Your task to perform on an android device: set the stopwatch Image 0: 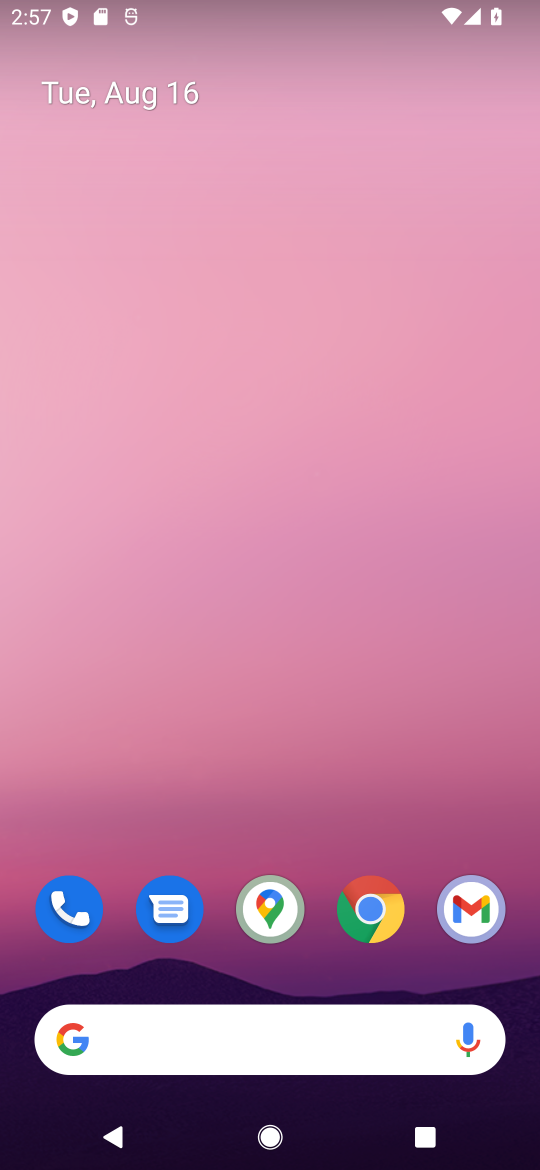
Step 0: click (370, 25)
Your task to perform on an android device: set the stopwatch Image 1: 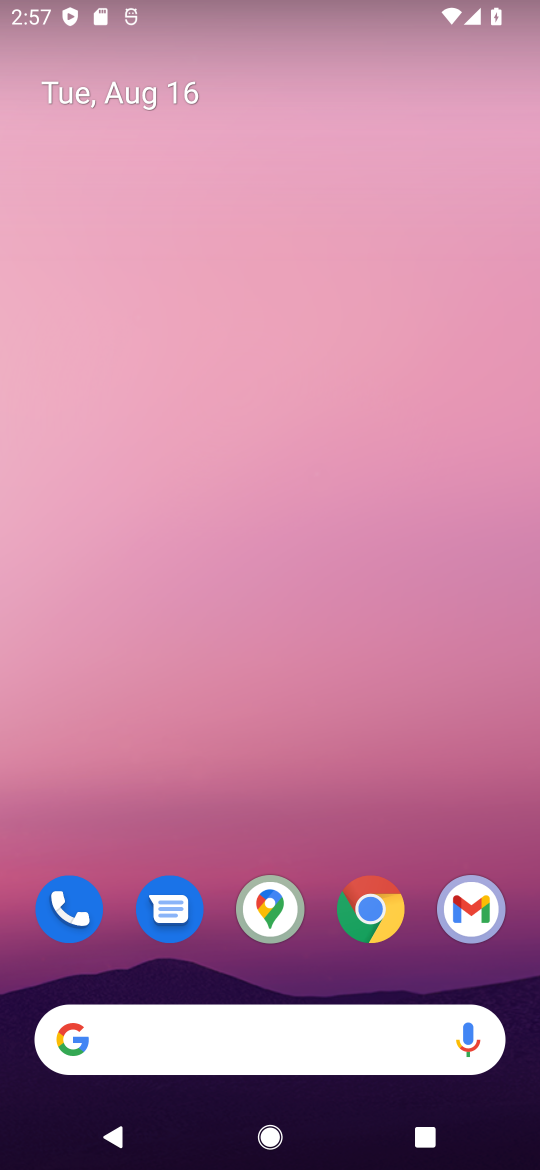
Step 1: drag from (297, 23) to (278, 94)
Your task to perform on an android device: set the stopwatch Image 2: 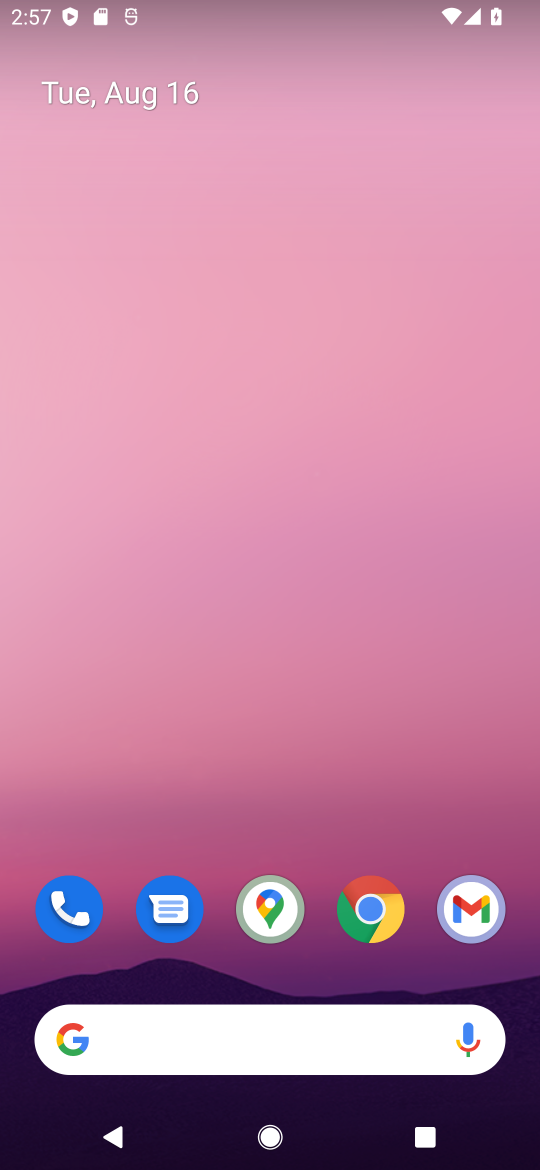
Step 2: drag from (240, 865) to (244, 235)
Your task to perform on an android device: set the stopwatch Image 3: 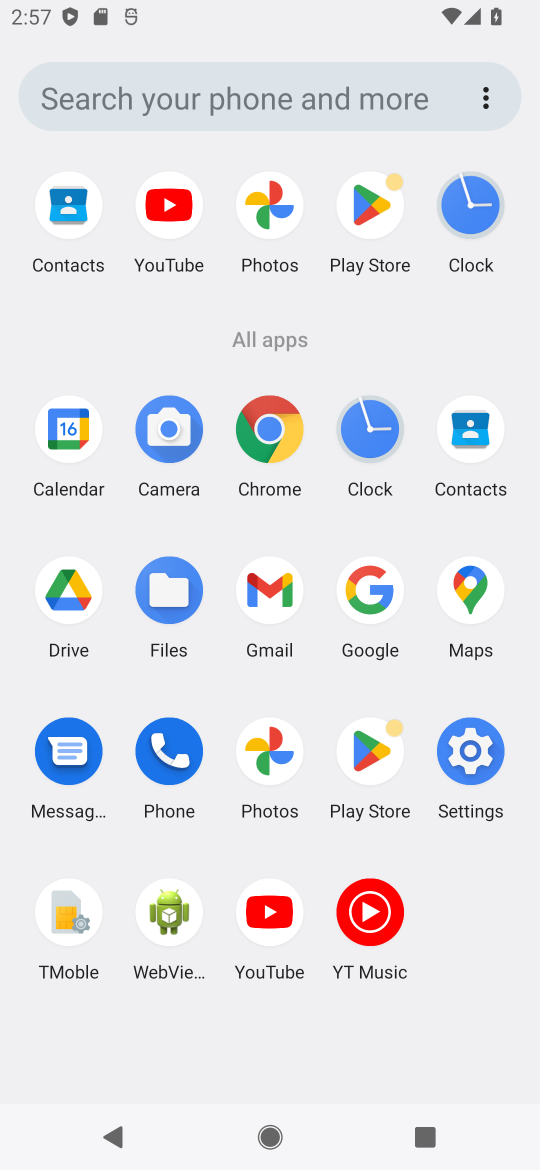
Step 3: click (379, 420)
Your task to perform on an android device: set the stopwatch Image 4: 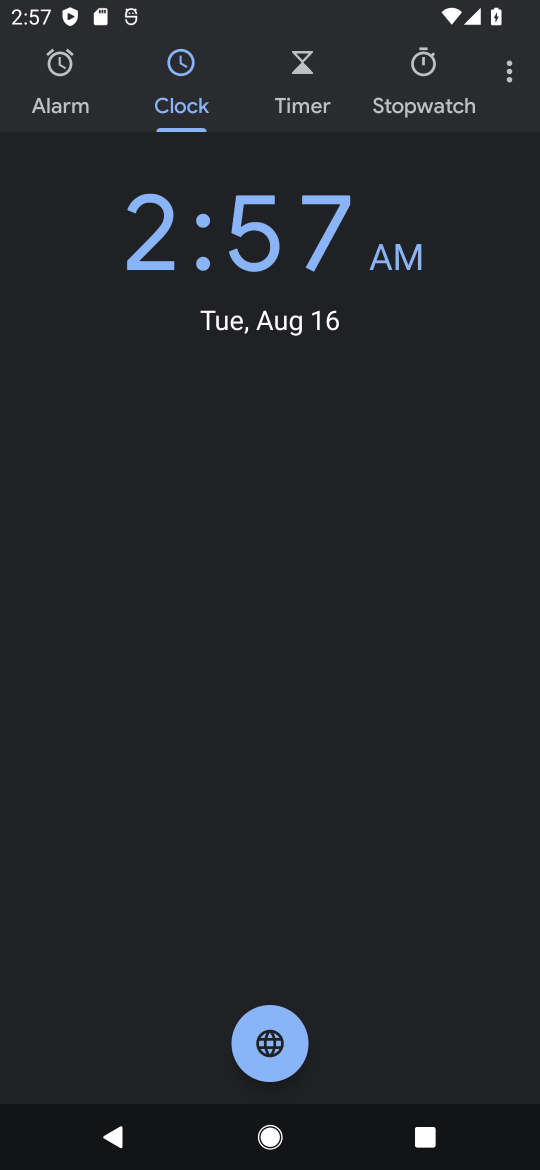
Step 4: click (395, 122)
Your task to perform on an android device: set the stopwatch Image 5: 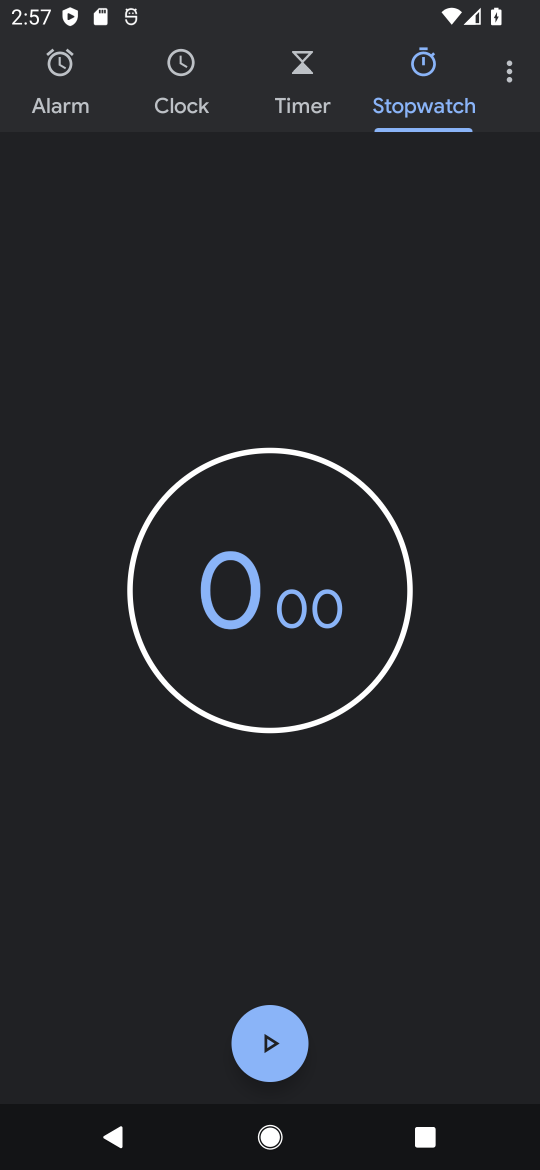
Step 5: click (250, 1029)
Your task to perform on an android device: set the stopwatch Image 6: 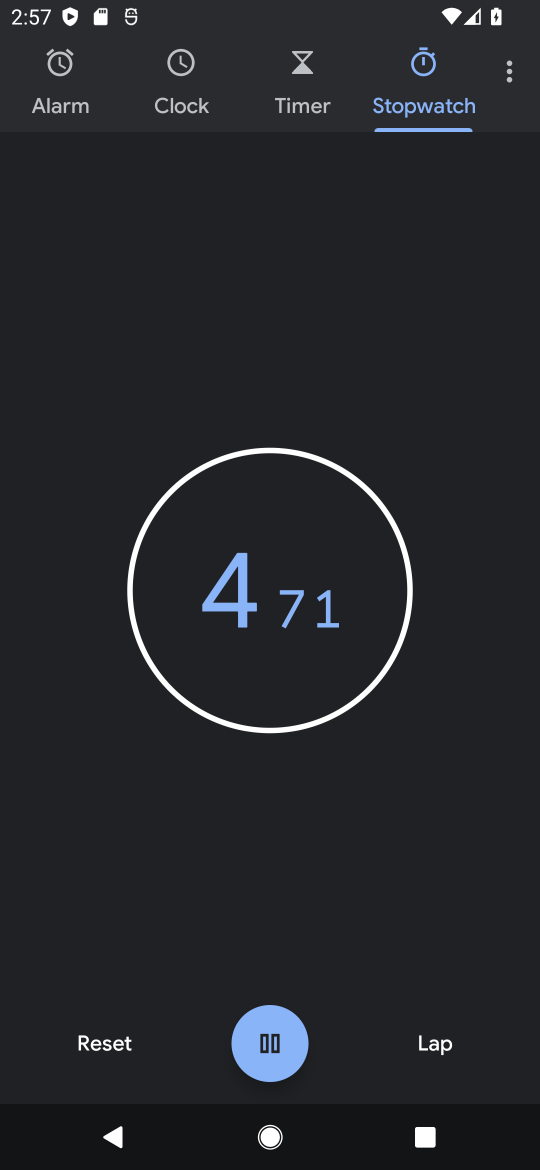
Step 6: click (271, 1035)
Your task to perform on an android device: set the stopwatch Image 7: 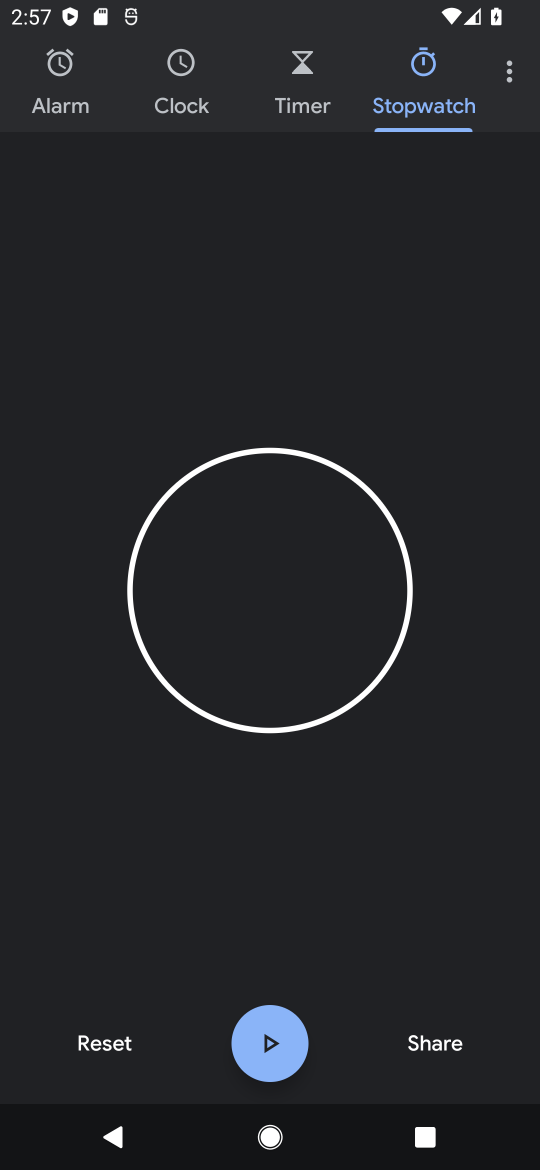
Step 7: task complete